Your task to perform on an android device: Open the map Image 0: 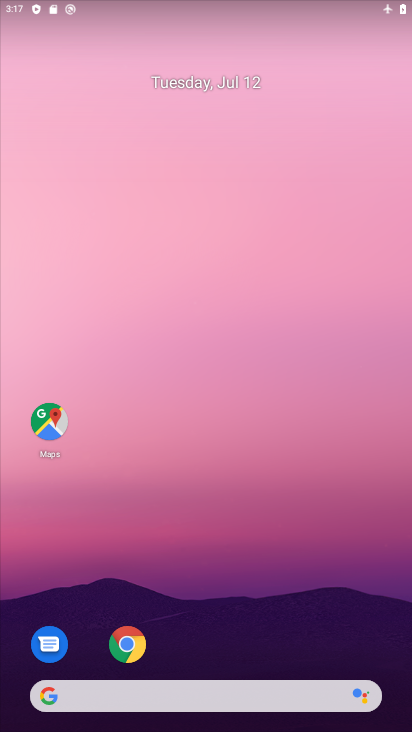
Step 0: drag from (247, 642) to (227, 185)
Your task to perform on an android device: Open the map Image 1: 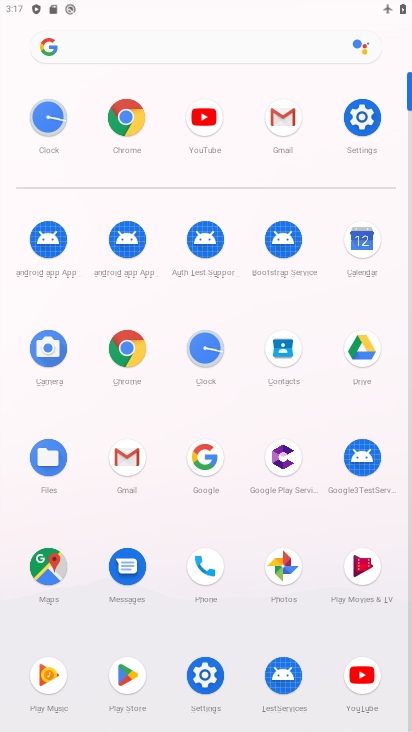
Step 1: click (48, 567)
Your task to perform on an android device: Open the map Image 2: 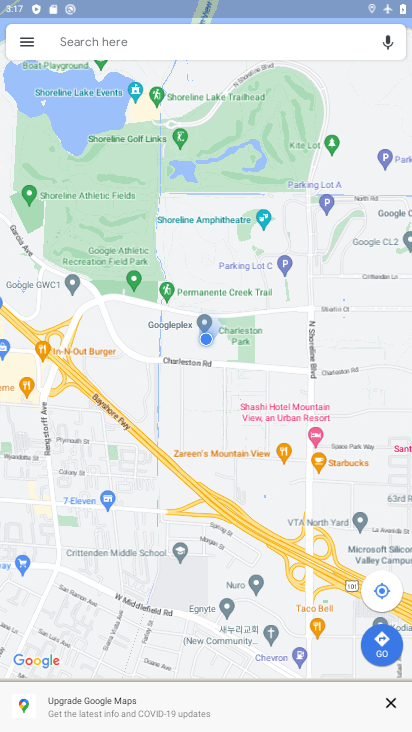
Step 2: task complete